Your task to perform on an android device: Play the last video I watched on Youtube Image 0: 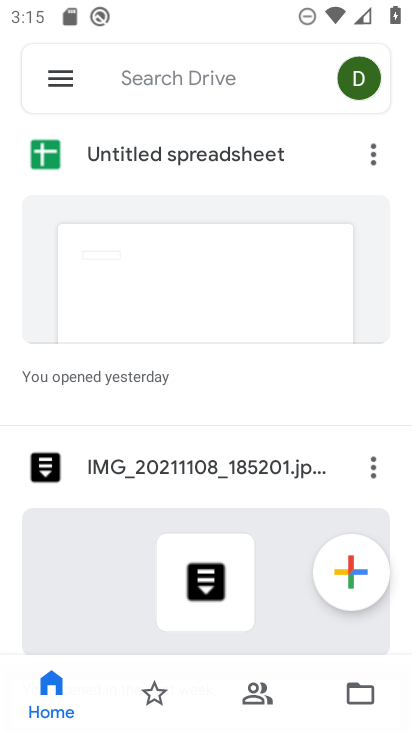
Step 0: press home button
Your task to perform on an android device: Play the last video I watched on Youtube Image 1: 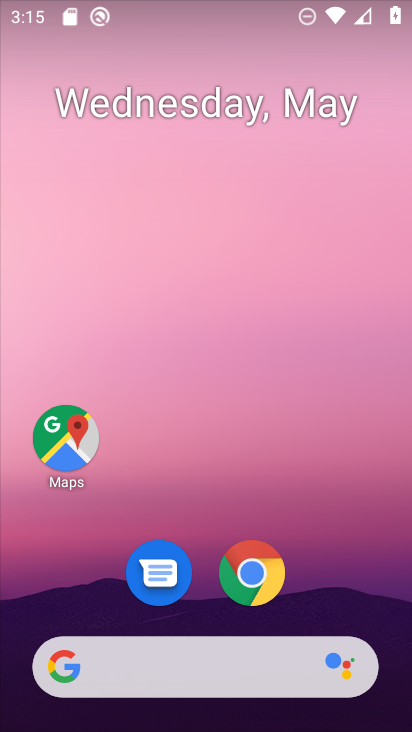
Step 1: drag from (301, 523) to (361, 85)
Your task to perform on an android device: Play the last video I watched on Youtube Image 2: 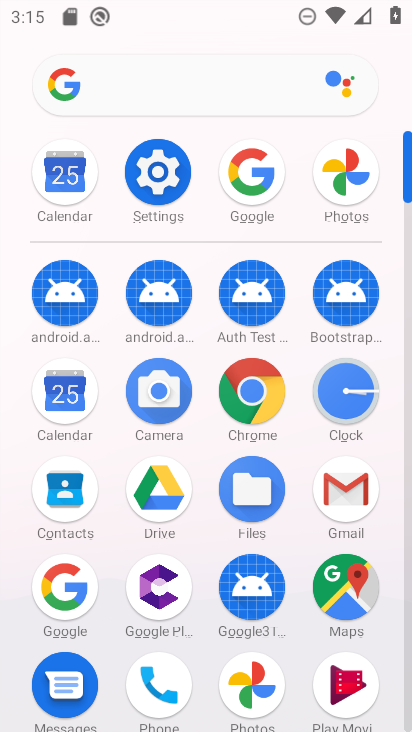
Step 2: drag from (296, 645) to (282, 233)
Your task to perform on an android device: Play the last video I watched on Youtube Image 3: 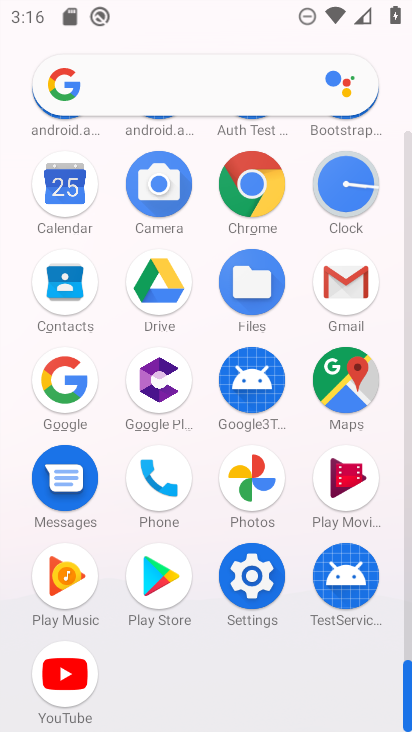
Step 3: click (67, 675)
Your task to perform on an android device: Play the last video I watched on Youtube Image 4: 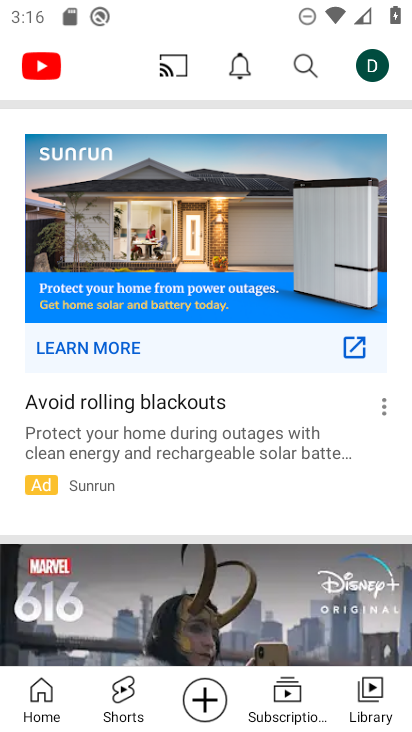
Step 4: click (373, 694)
Your task to perform on an android device: Play the last video I watched on Youtube Image 5: 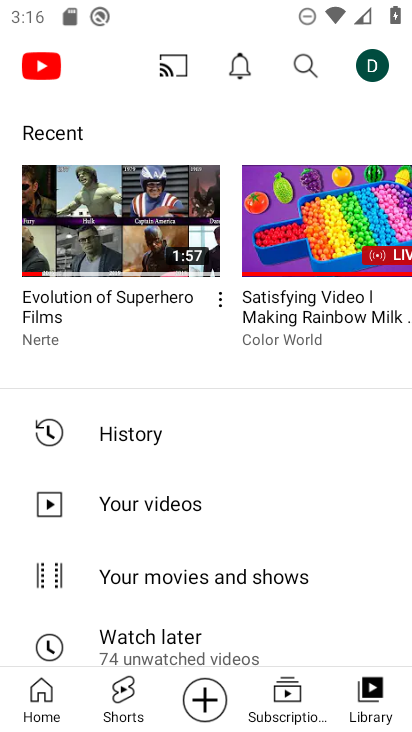
Step 5: click (117, 230)
Your task to perform on an android device: Play the last video I watched on Youtube Image 6: 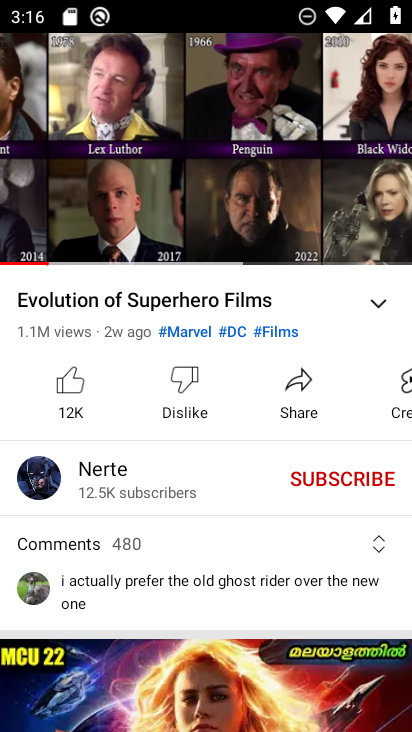
Step 6: task complete